Your task to perform on an android device: Go to accessibility settings Image 0: 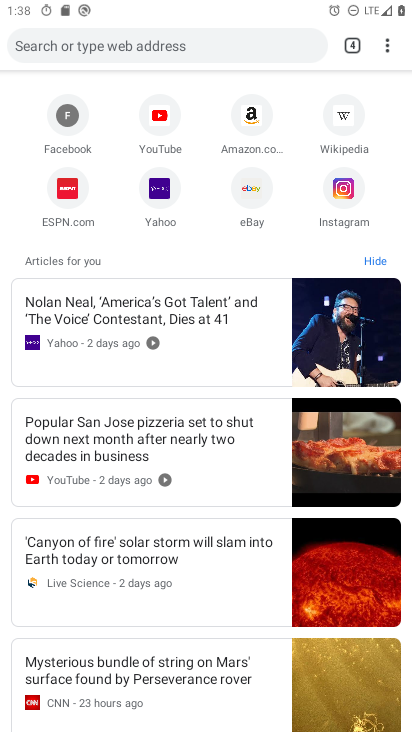
Step 0: press home button
Your task to perform on an android device: Go to accessibility settings Image 1: 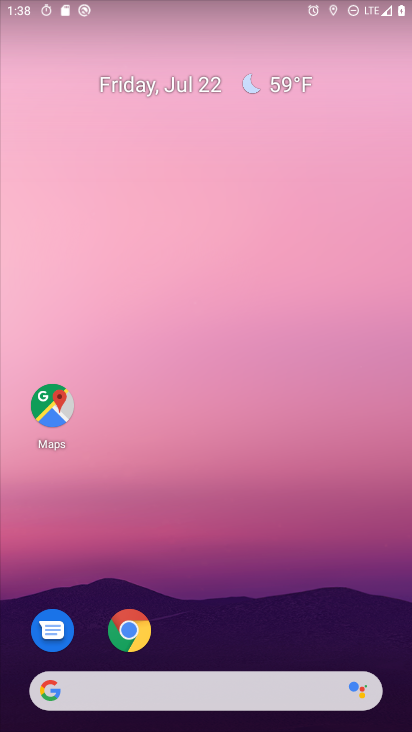
Step 1: drag from (240, 633) to (296, 122)
Your task to perform on an android device: Go to accessibility settings Image 2: 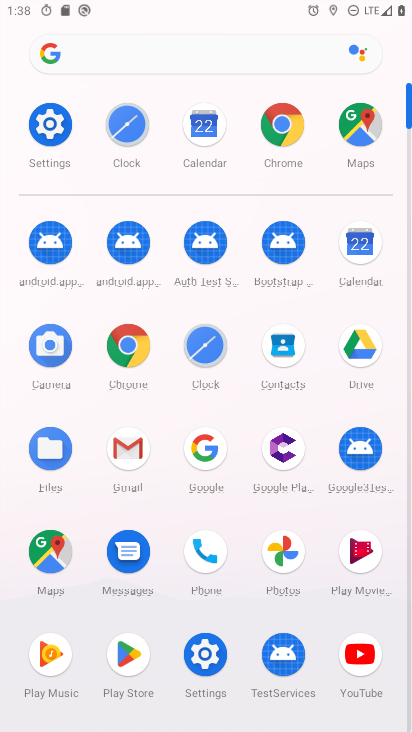
Step 2: click (53, 125)
Your task to perform on an android device: Go to accessibility settings Image 3: 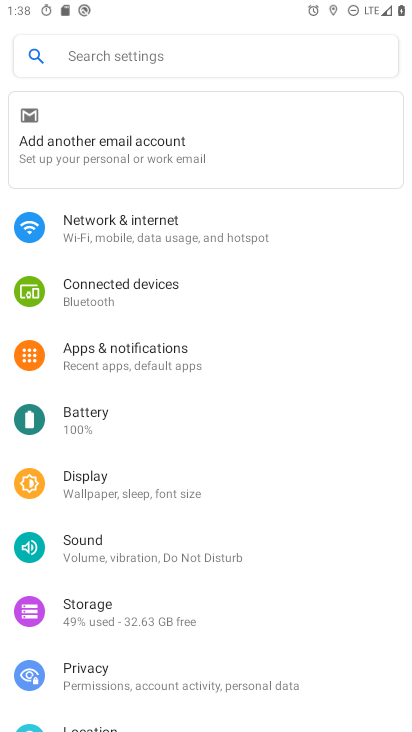
Step 3: drag from (303, 623) to (340, 168)
Your task to perform on an android device: Go to accessibility settings Image 4: 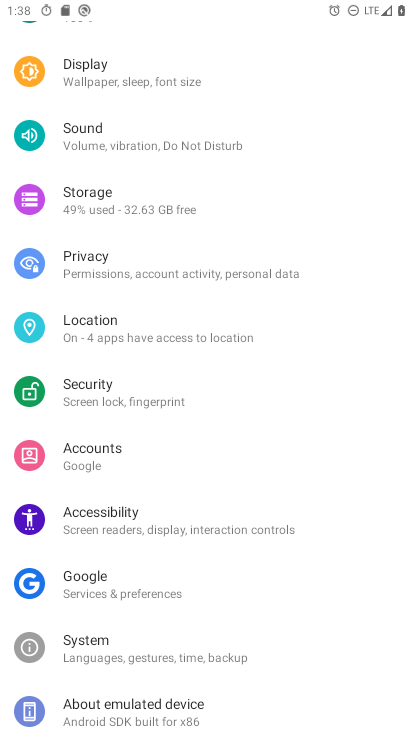
Step 4: click (90, 518)
Your task to perform on an android device: Go to accessibility settings Image 5: 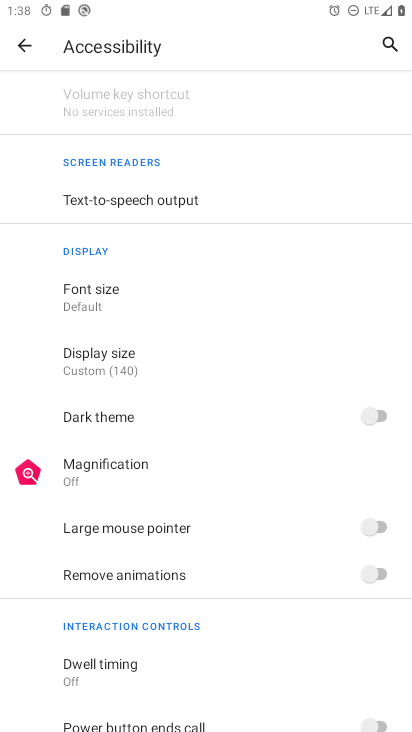
Step 5: task complete